Your task to perform on an android device: turn off priority inbox in the gmail app Image 0: 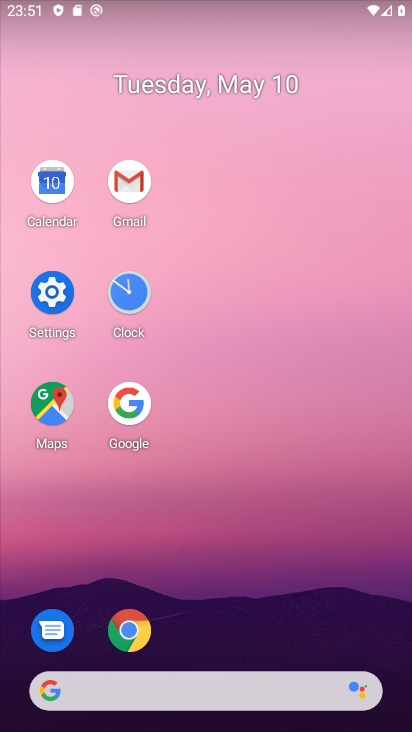
Step 0: click (122, 183)
Your task to perform on an android device: turn off priority inbox in the gmail app Image 1: 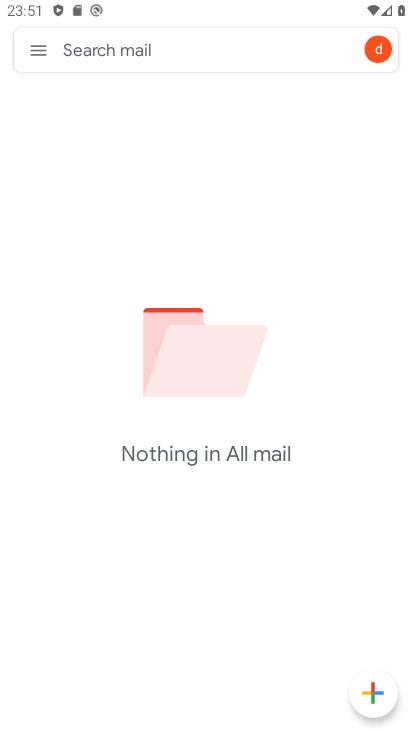
Step 1: click (21, 44)
Your task to perform on an android device: turn off priority inbox in the gmail app Image 2: 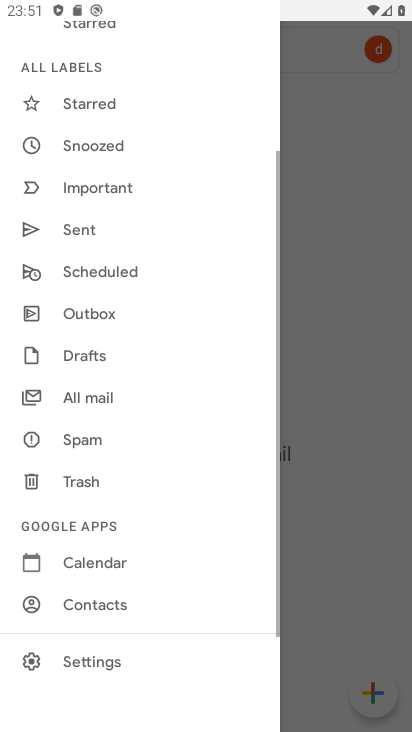
Step 2: click (148, 662)
Your task to perform on an android device: turn off priority inbox in the gmail app Image 3: 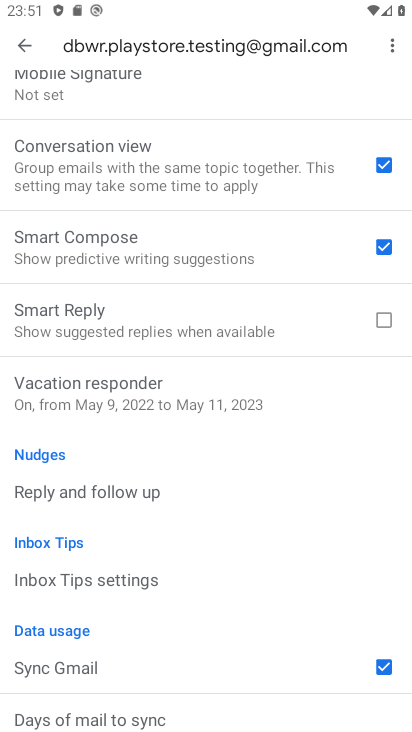
Step 3: drag from (177, 212) to (160, 633)
Your task to perform on an android device: turn off priority inbox in the gmail app Image 4: 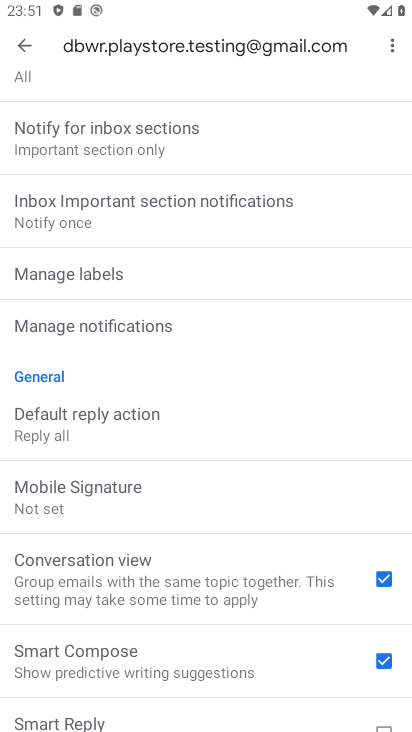
Step 4: drag from (214, 232) to (225, 679)
Your task to perform on an android device: turn off priority inbox in the gmail app Image 5: 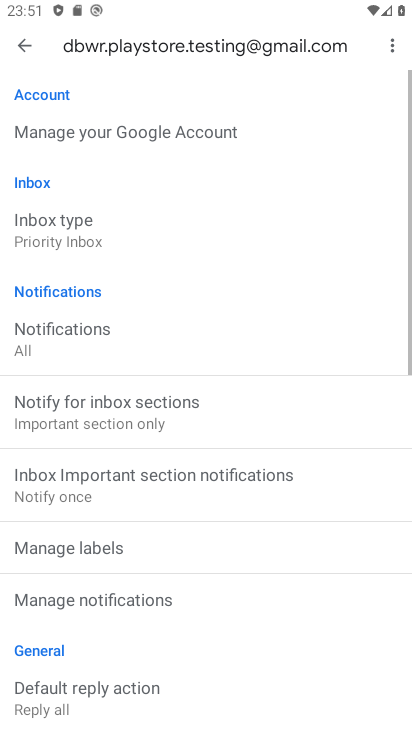
Step 5: click (198, 214)
Your task to perform on an android device: turn off priority inbox in the gmail app Image 6: 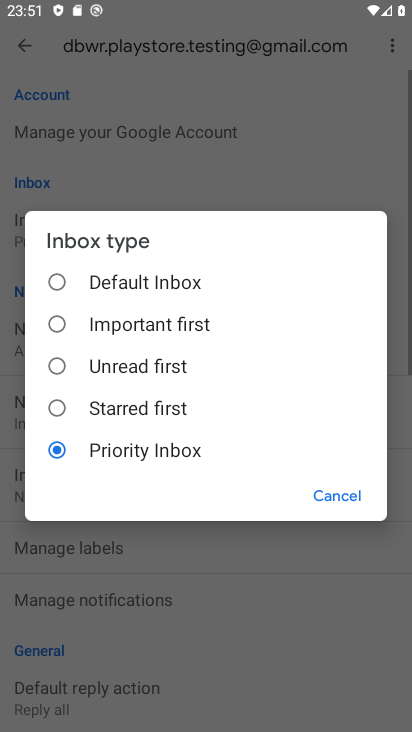
Step 6: click (120, 276)
Your task to perform on an android device: turn off priority inbox in the gmail app Image 7: 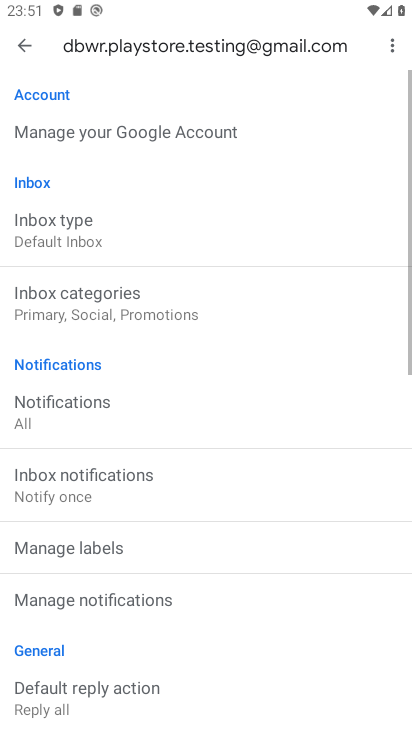
Step 7: task complete